Your task to perform on an android device: turn on the 24-hour format for clock Image 0: 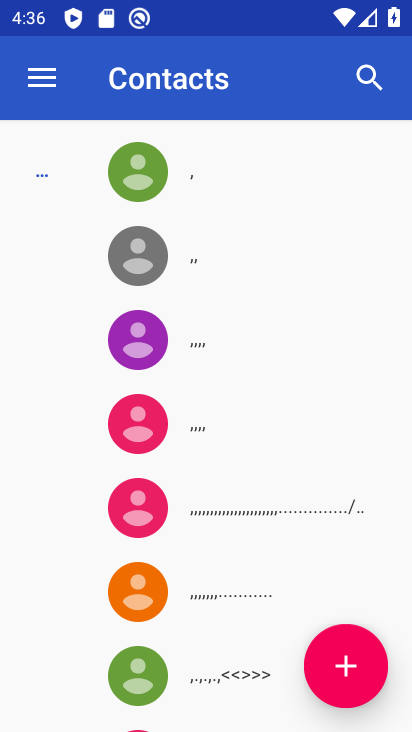
Step 0: press home button
Your task to perform on an android device: turn on the 24-hour format for clock Image 1: 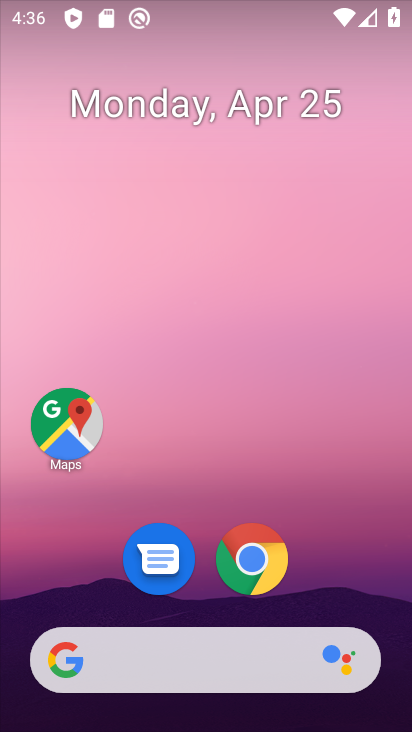
Step 1: drag from (198, 614) to (230, 77)
Your task to perform on an android device: turn on the 24-hour format for clock Image 2: 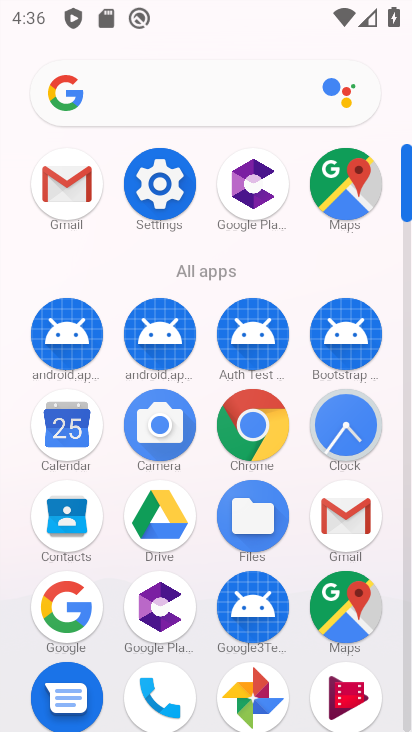
Step 2: click (353, 444)
Your task to perform on an android device: turn on the 24-hour format for clock Image 3: 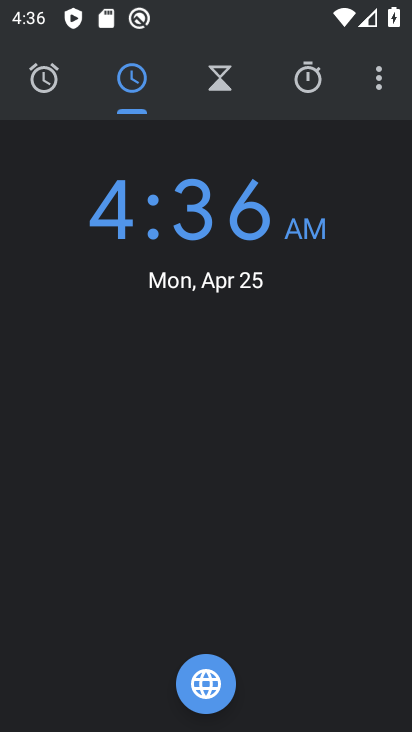
Step 3: click (369, 95)
Your task to perform on an android device: turn on the 24-hour format for clock Image 4: 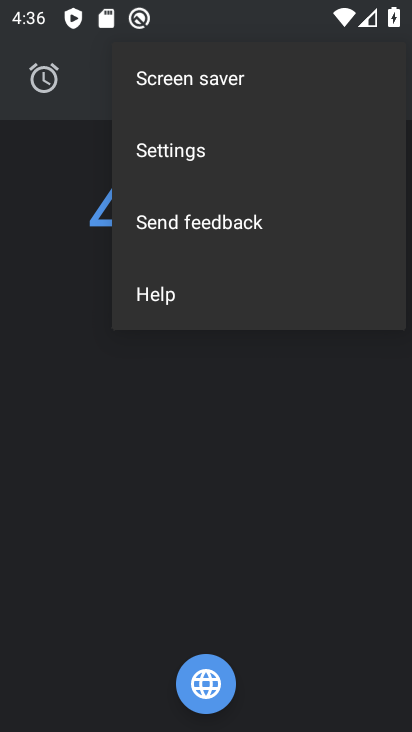
Step 4: click (214, 162)
Your task to perform on an android device: turn on the 24-hour format for clock Image 5: 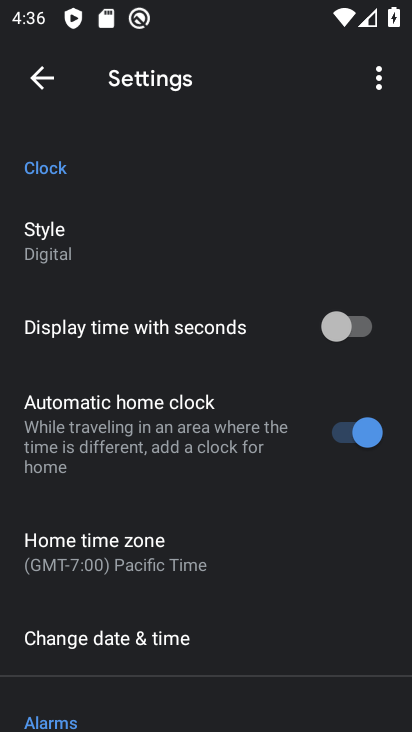
Step 5: drag from (145, 576) to (194, 124)
Your task to perform on an android device: turn on the 24-hour format for clock Image 6: 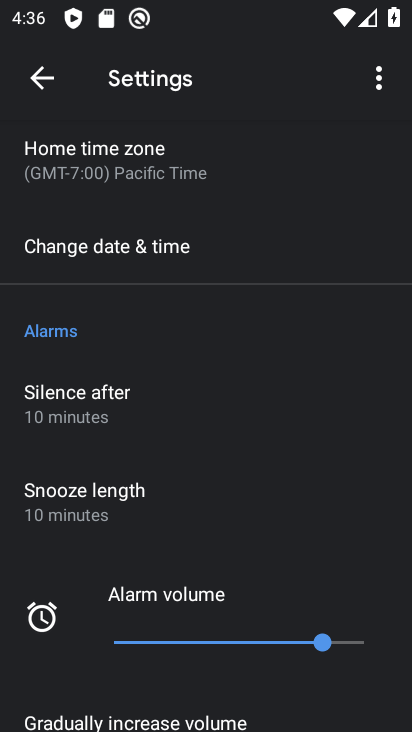
Step 6: drag from (112, 463) to (197, 70)
Your task to perform on an android device: turn on the 24-hour format for clock Image 7: 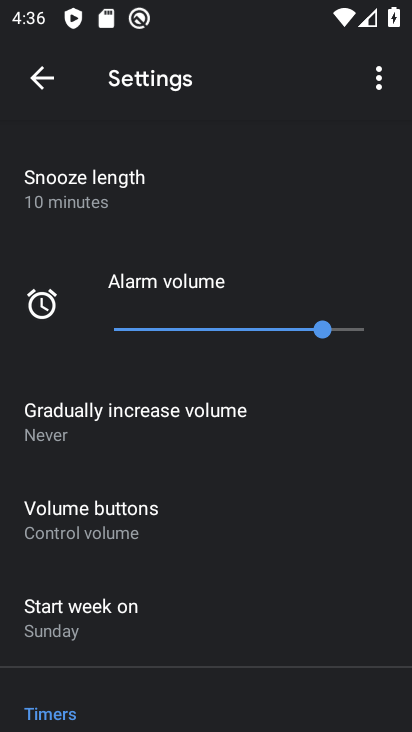
Step 7: drag from (95, 588) to (215, 63)
Your task to perform on an android device: turn on the 24-hour format for clock Image 8: 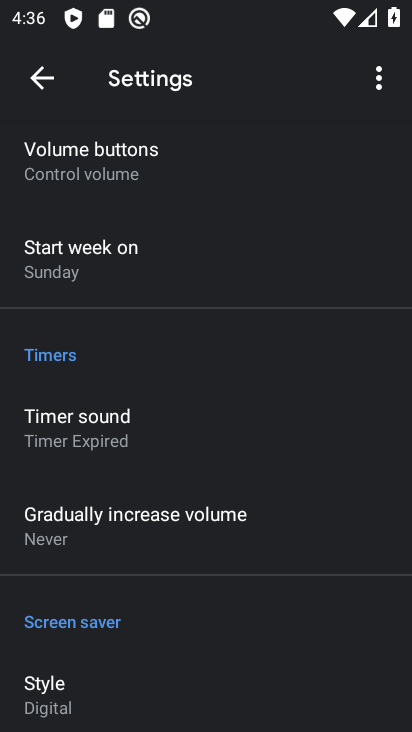
Step 8: drag from (118, 541) to (162, 194)
Your task to perform on an android device: turn on the 24-hour format for clock Image 9: 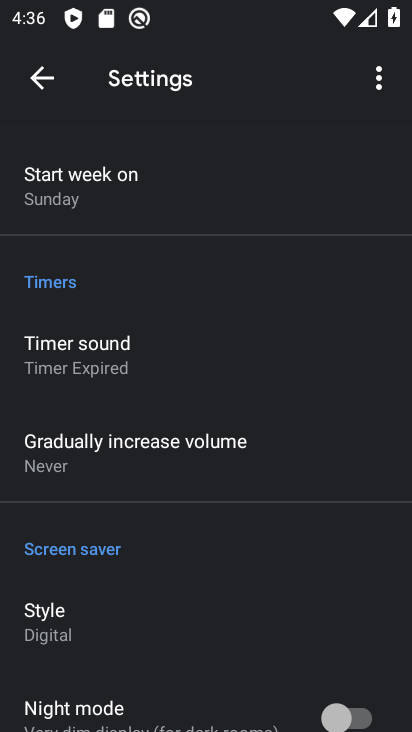
Step 9: drag from (125, 617) to (154, 203)
Your task to perform on an android device: turn on the 24-hour format for clock Image 10: 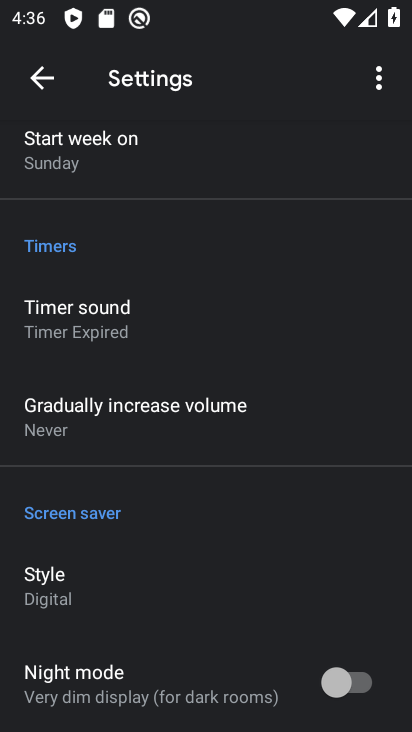
Step 10: drag from (183, 552) to (273, 57)
Your task to perform on an android device: turn on the 24-hour format for clock Image 11: 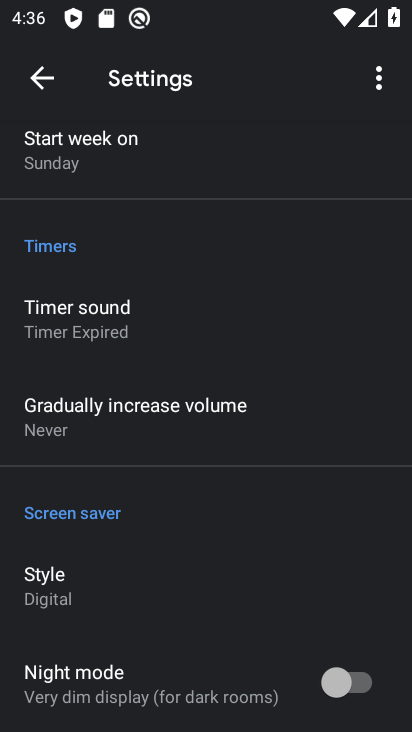
Step 11: drag from (165, 142) to (192, 587)
Your task to perform on an android device: turn on the 24-hour format for clock Image 12: 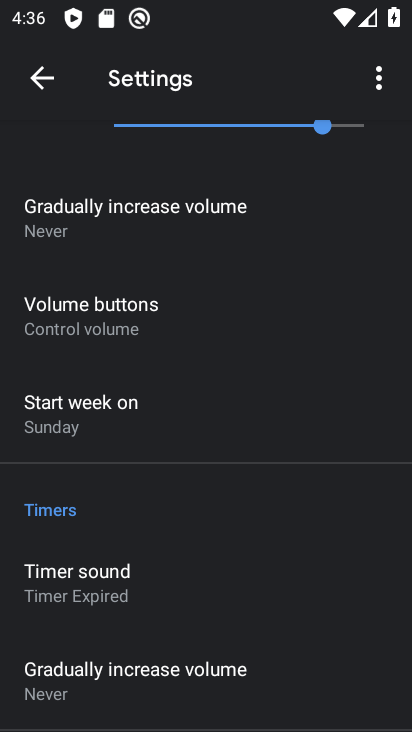
Step 12: drag from (138, 215) to (117, 566)
Your task to perform on an android device: turn on the 24-hour format for clock Image 13: 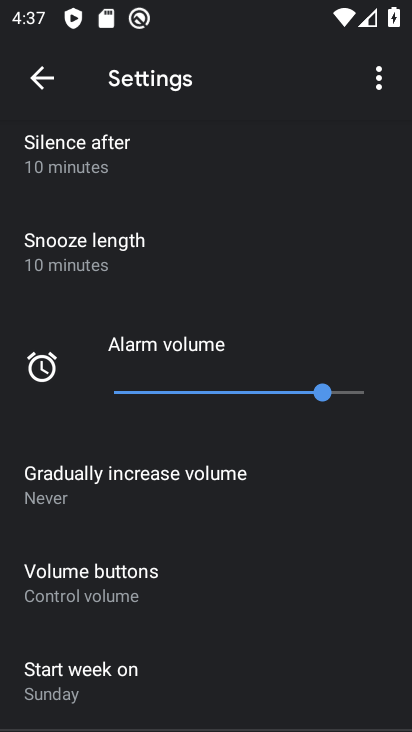
Step 13: drag from (112, 110) to (86, 555)
Your task to perform on an android device: turn on the 24-hour format for clock Image 14: 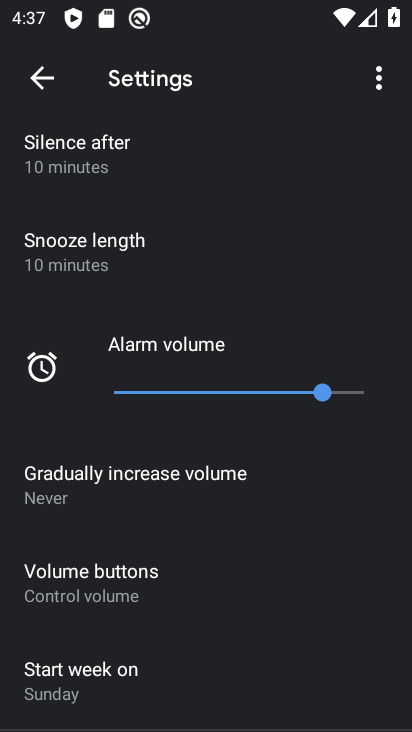
Step 14: drag from (190, 229) to (147, 647)
Your task to perform on an android device: turn on the 24-hour format for clock Image 15: 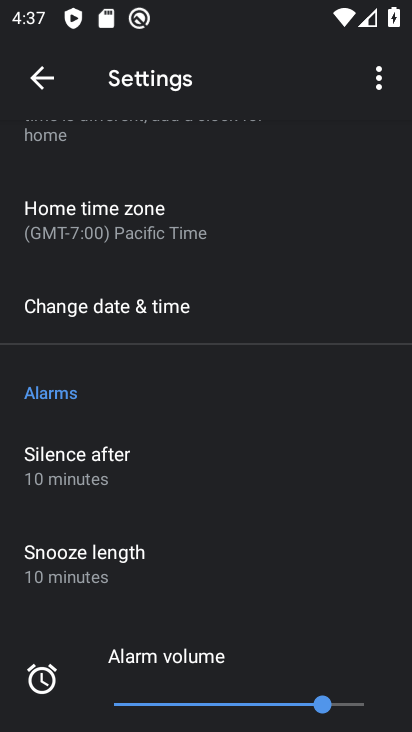
Step 15: drag from (165, 211) to (159, 567)
Your task to perform on an android device: turn on the 24-hour format for clock Image 16: 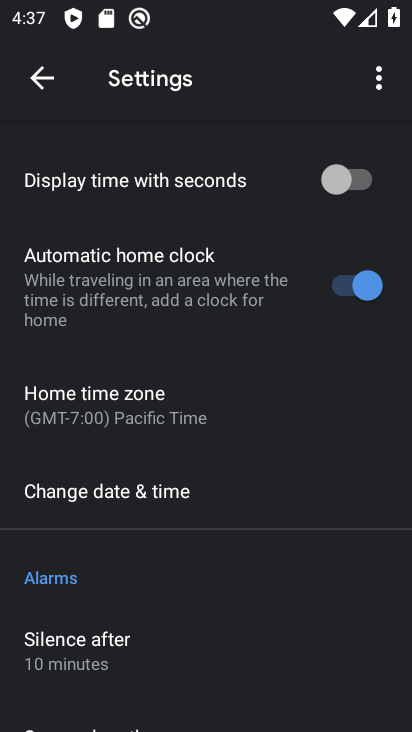
Step 16: click (125, 502)
Your task to perform on an android device: turn on the 24-hour format for clock Image 17: 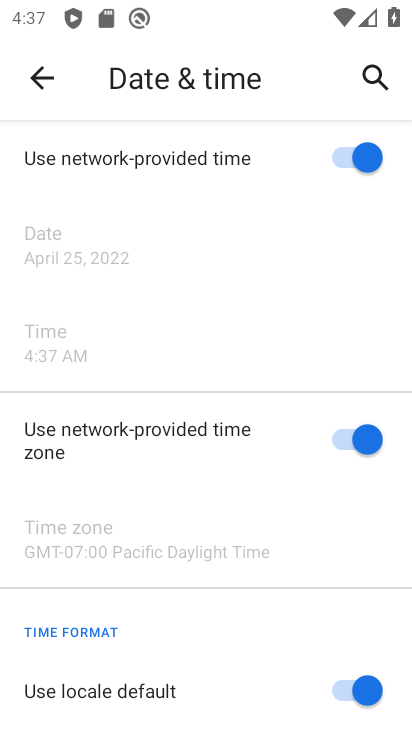
Step 17: drag from (227, 664) to (341, 255)
Your task to perform on an android device: turn on the 24-hour format for clock Image 18: 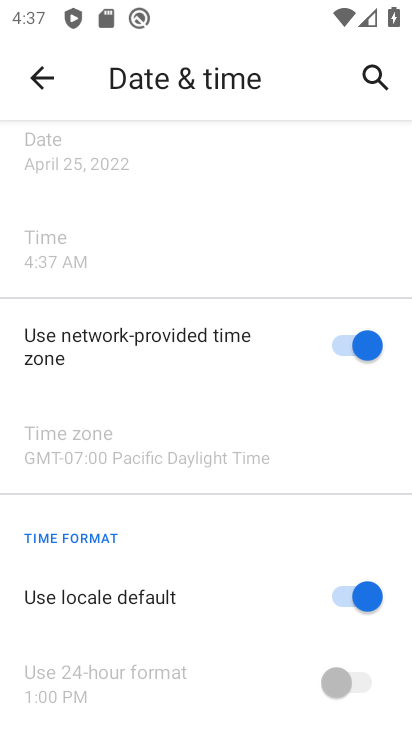
Step 18: drag from (244, 508) to (220, 204)
Your task to perform on an android device: turn on the 24-hour format for clock Image 19: 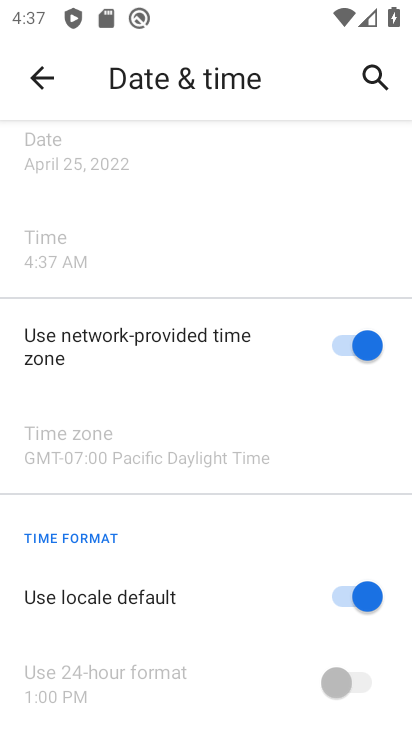
Step 19: click (353, 600)
Your task to perform on an android device: turn on the 24-hour format for clock Image 20: 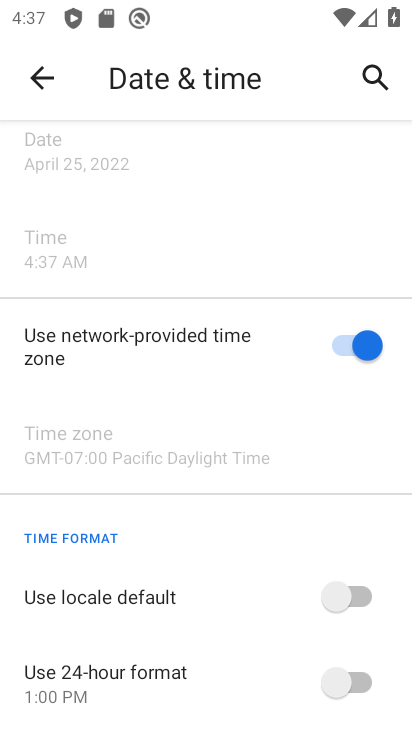
Step 20: click (353, 684)
Your task to perform on an android device: turn on the 24-hour format for clock Image 21: 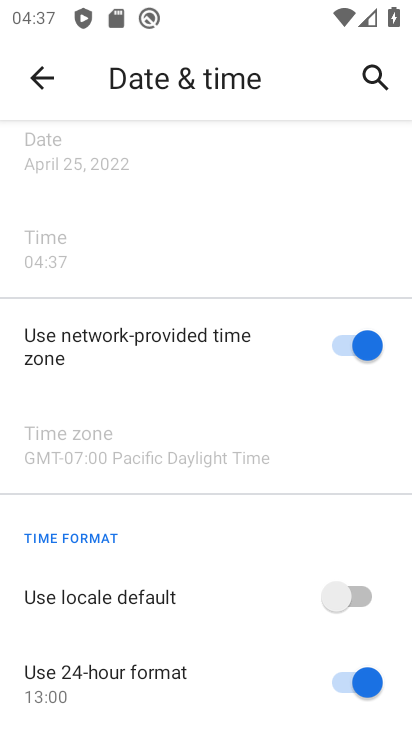
Step 21: task complete